Your task to perform on an android device: Go to display settings Image 0: 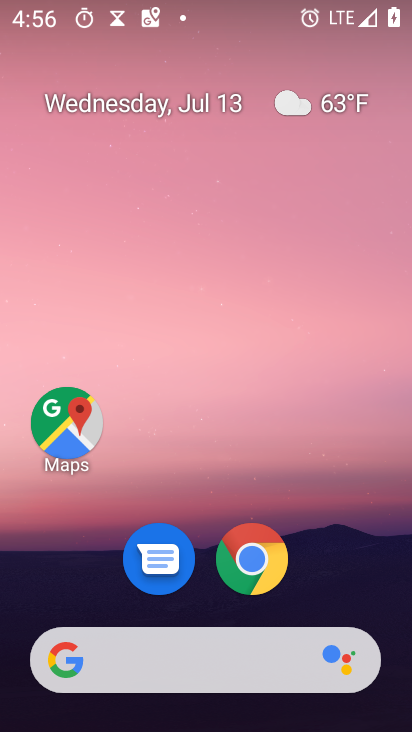
Step 0: drag from (398, 600) to (272, 96)
Your task to perform on an android device: Go to display settings Image 1: 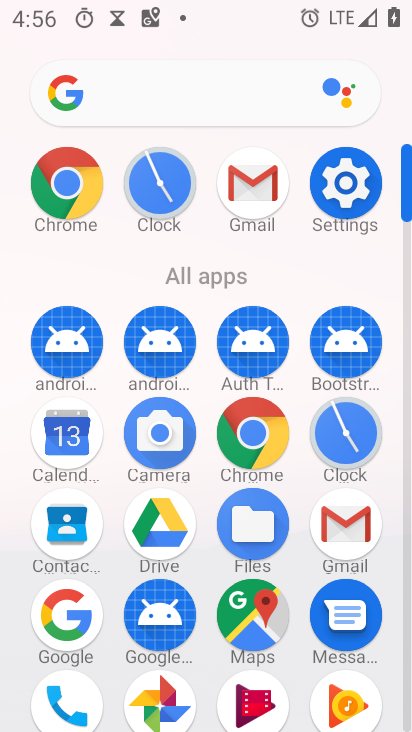
Step 1: click (356, 188)
Your task to perform on an android device: Go to display settings Image 2: 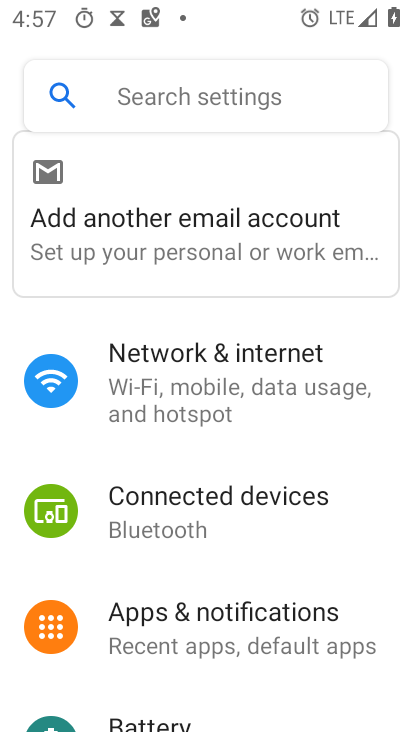
Step 2: drag from (362, 561) to (312, 140)
Your task to perform on an android device: Go to display settings Image 3: 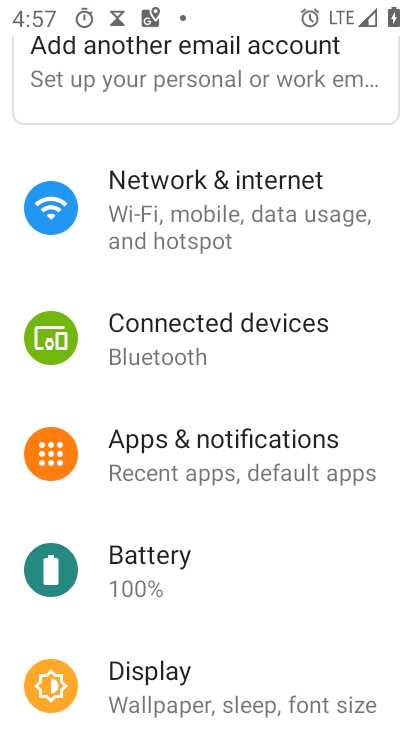
Step 3: click (276, 712)
Your task to perform on an android device: Go to display settings Image 4: 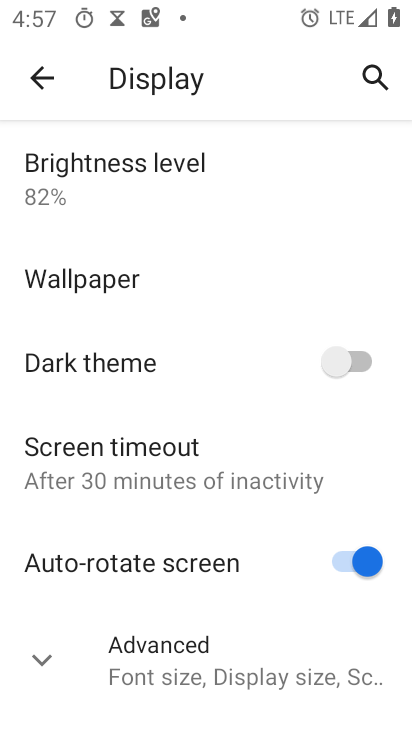
Step 4: click (290, 670)
Your task to perform on an android device: Go to display settings Image 5: 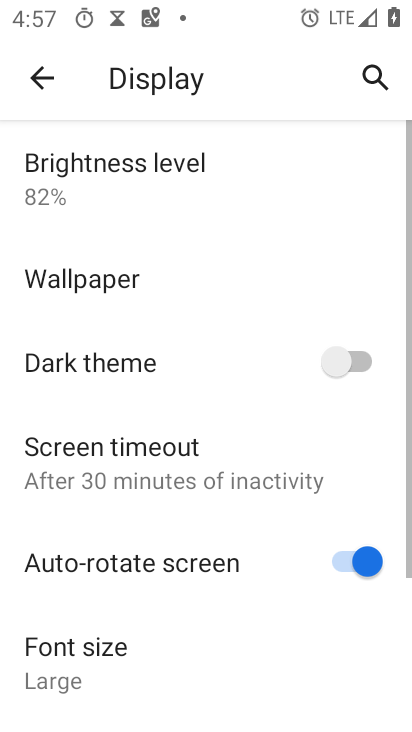
Step 5: task complete